Your task to perform on an android device: Check the weather Image 0: 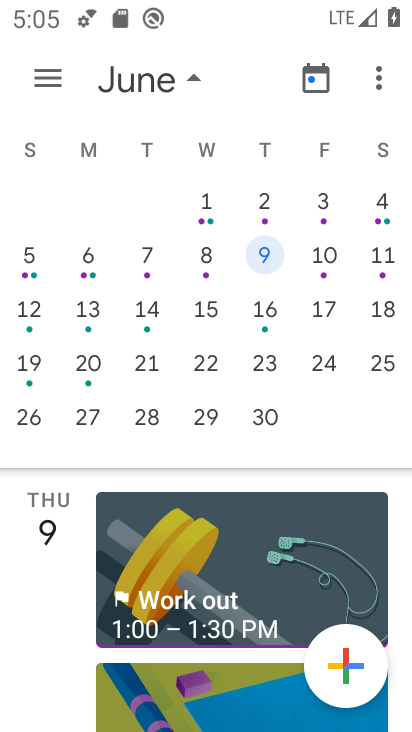
Step 0: press home button
Your task to perform on an android device: Check the weather Image 1: 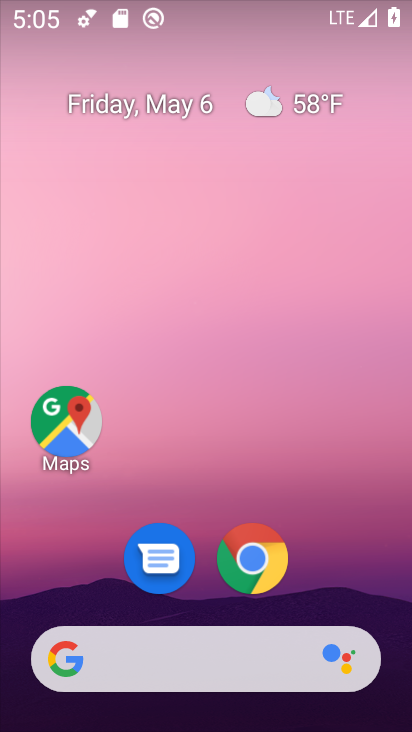
Step 1: drag from (269, 622) to (272, 21)
Your task to perform on an android device: Check the weather Image 2: 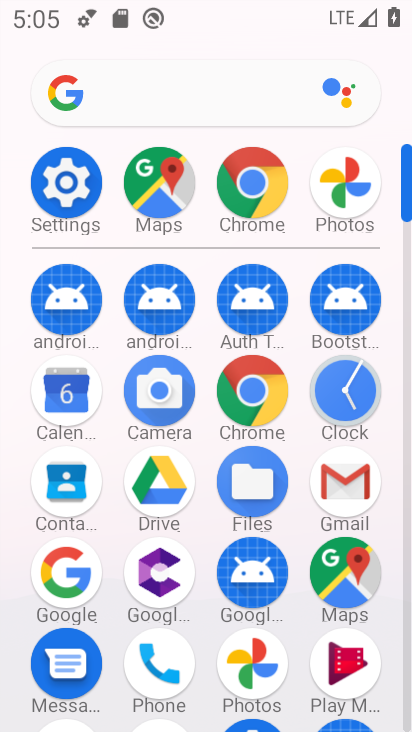
Step 2: click (274, 394)
Your task to perform on an android device: Check the weather Image 3: 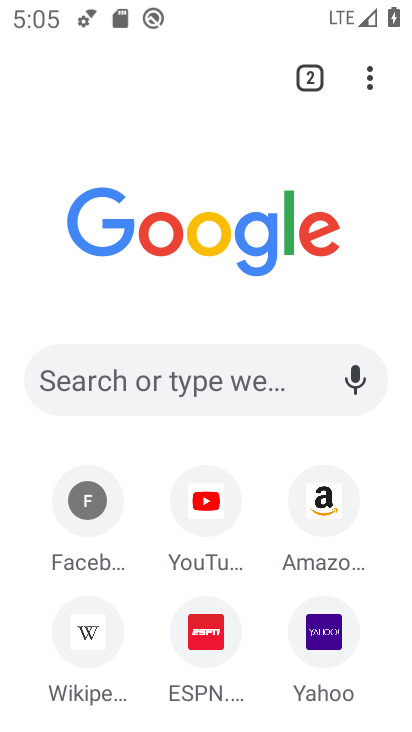
Step 3: click (243, 365)
Your task to perform on an android device: Check the weather Image 4: 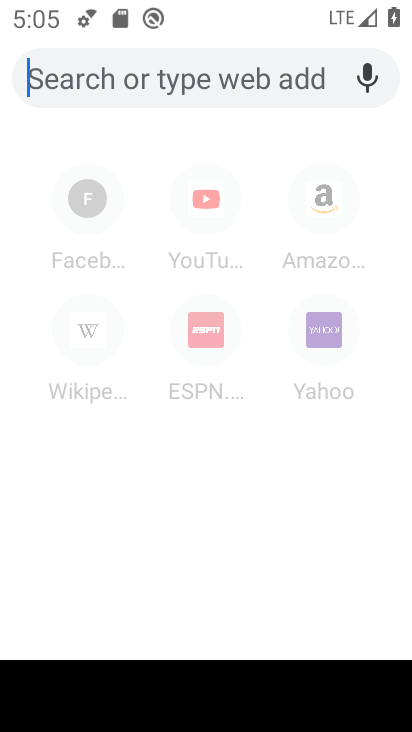
Step 4: type "check the weather"
Your task to perform on an android device: Check the weather Image 5: 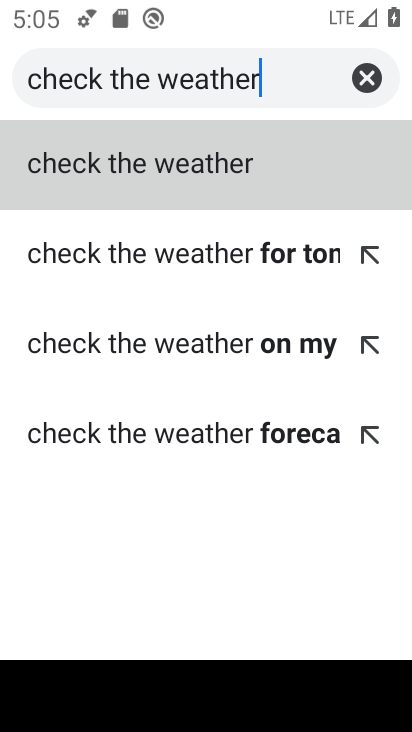
Step 5: click (180, 149)
Your task to perform on an android device: Check the weather Image 6: 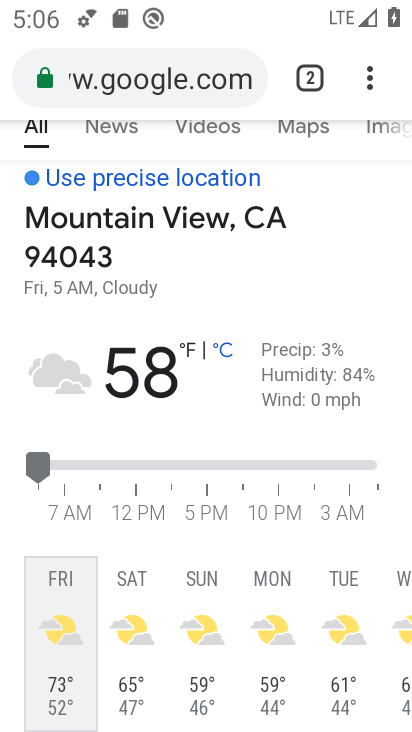
Step 6: task complete